Your task to perform on an android device: What is the recent news? Image 0: 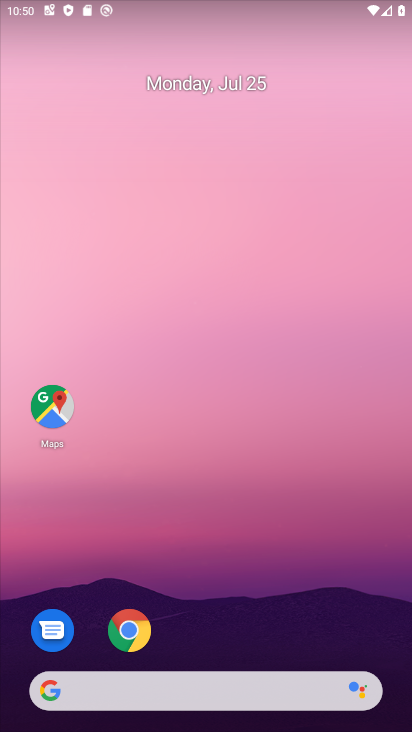
Step 0: drag from (0, 222) to (406, 415)
Your task to perform on an android device: What is the recent news? Image 1: 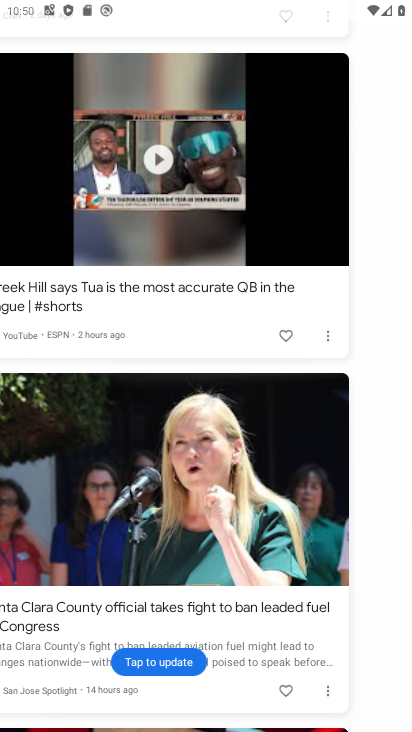
Step 1: task complete